Your task to perform on an android device: set the stopwatch Image 0: 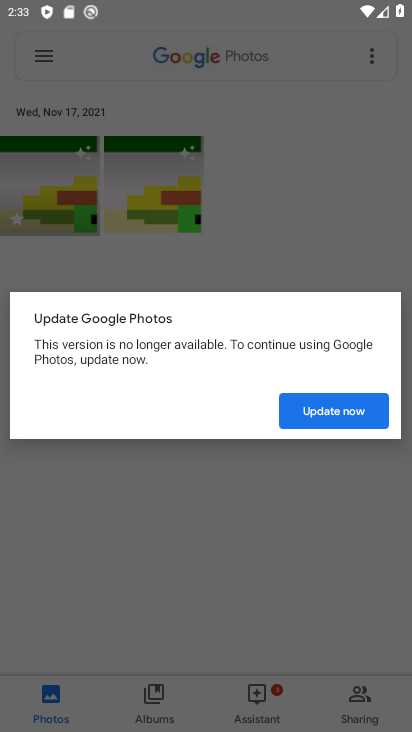
Step 0: press home button
Your task to perform on an android device: set the stopwatch Image 1: 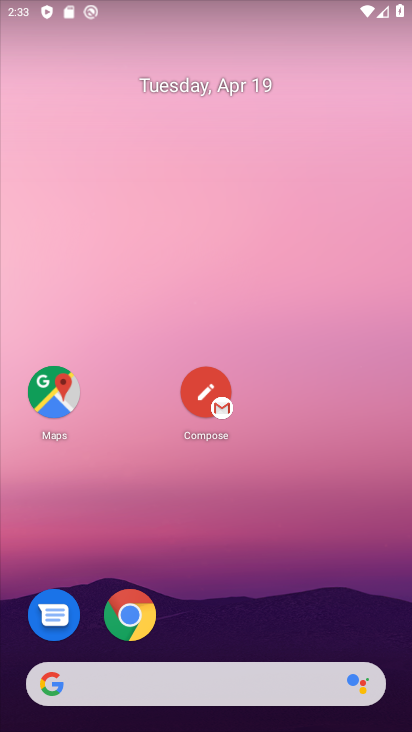
Step 1: drag from (315, 655) to (271, 56)
Your task to perform on an android device: set the stopwatch Image 2: 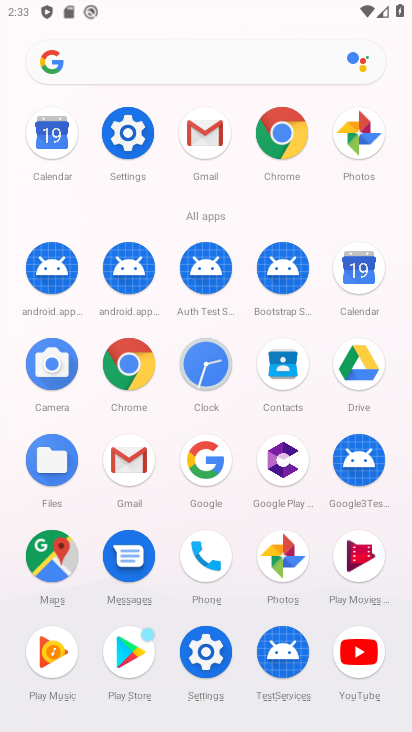
Step 2: drag from (316, 635) to (313, 287)
Your task to perform on an android device: set the stopwatch Image 3: 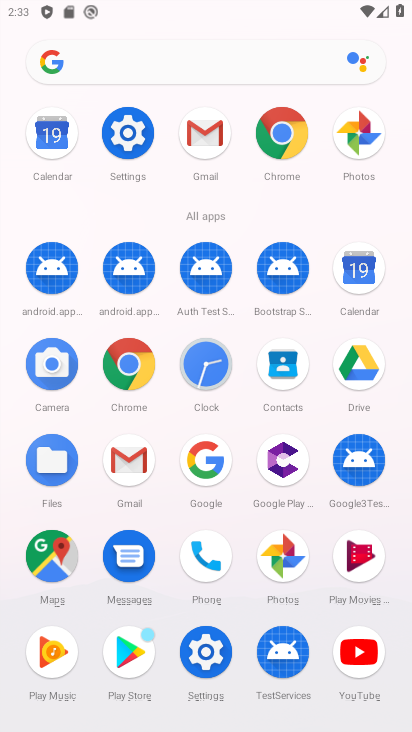
Step 3: click (208, 381)
Your task to perform on an android device: set the stopwatch Image 4: 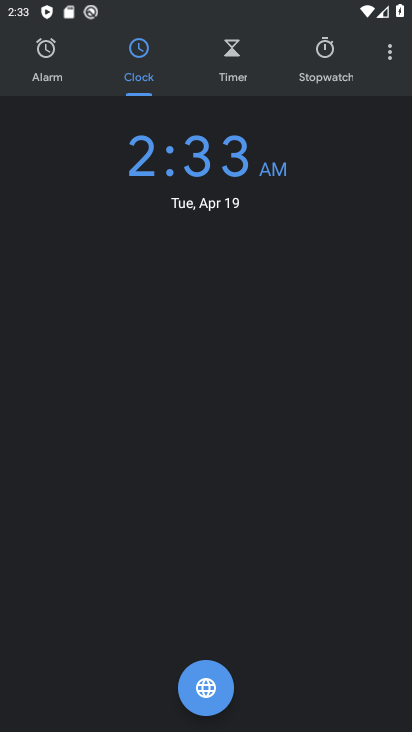
Step 4: click (332, 58)
Your task to perform on an android device: set the stopwatch Image 5: 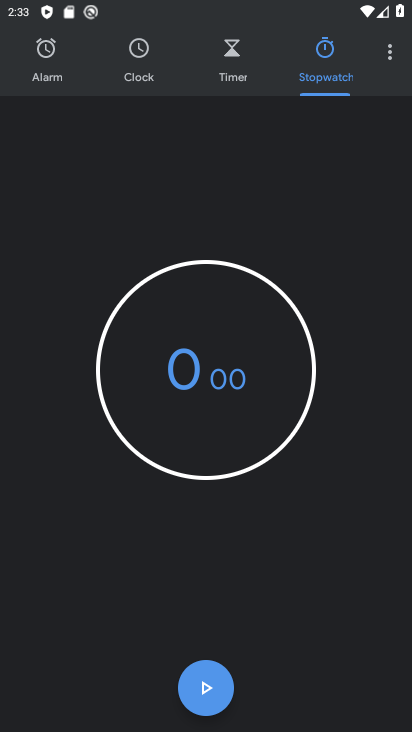
Step 5: click (221, 684)
Your task to perform on an android device: set the stopwatch Image 6: 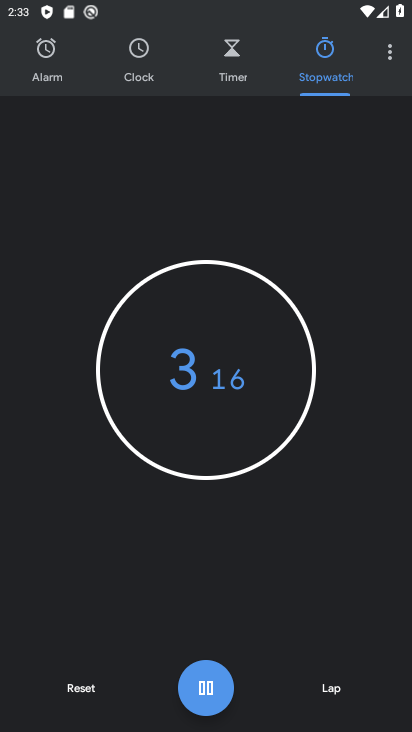
Step 6: task complete